Your task to perform on an android device: What's the weather today? Image 0: 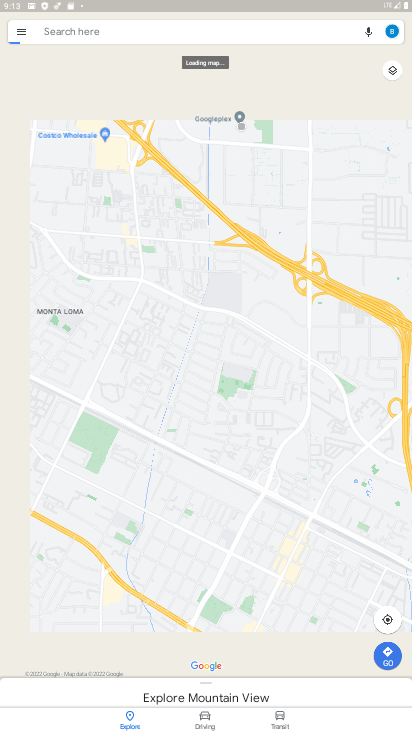
Step 0: drag from (254, 602) to (289, 422)
Your task to perform on an android device: What's the weather today? Image 1: 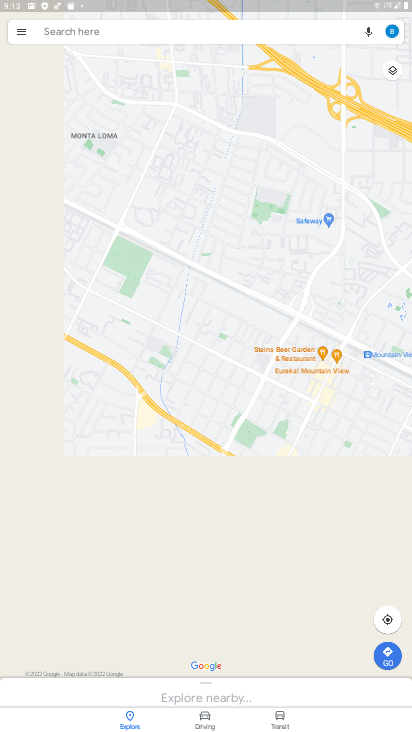
Step 1: press home button
Your task to perform on an android device: What's the weather today? Image 2: 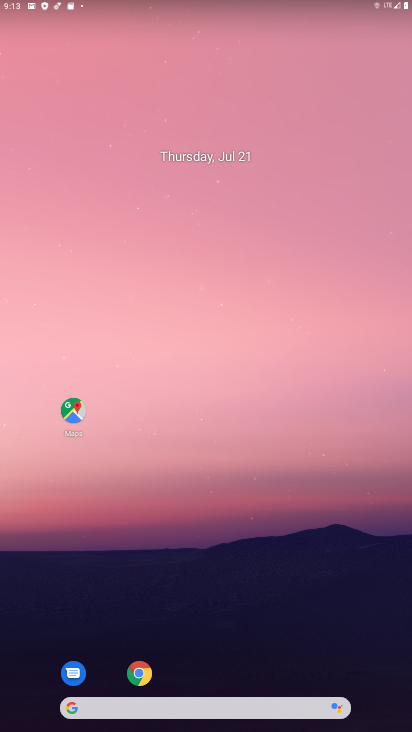
Step 2: drag from (198, 502) to (252, 81)
Your task to perform on an android device: What's the weather today? Image 3: 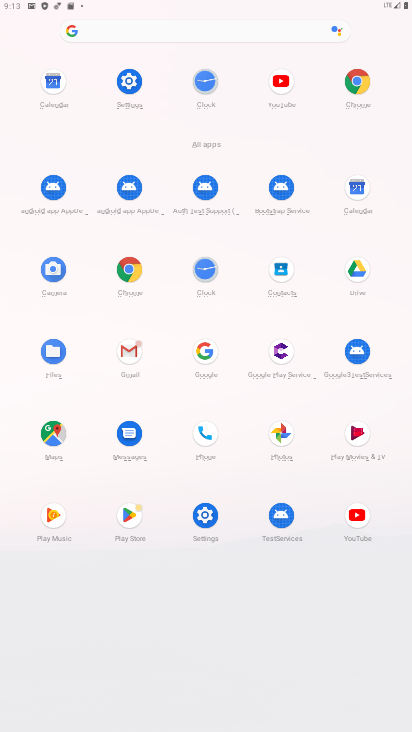
Step 3: click (169, 34)
Your task to perform on an android device: What's the weather today? Image 4: 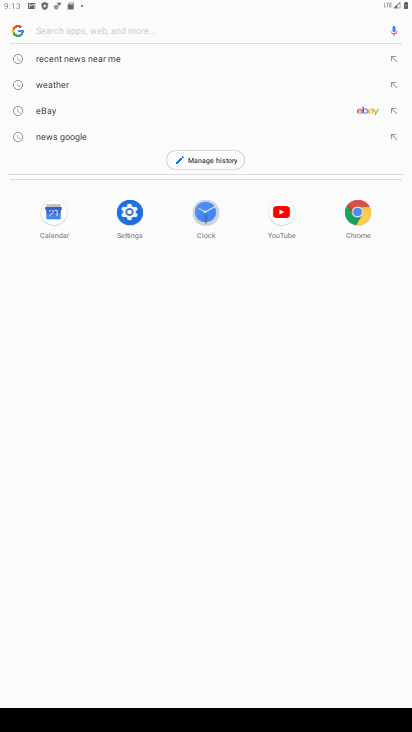
Step 4: click (164, 24)
Your task to perform on an android device: What's the weather today? Image 5: 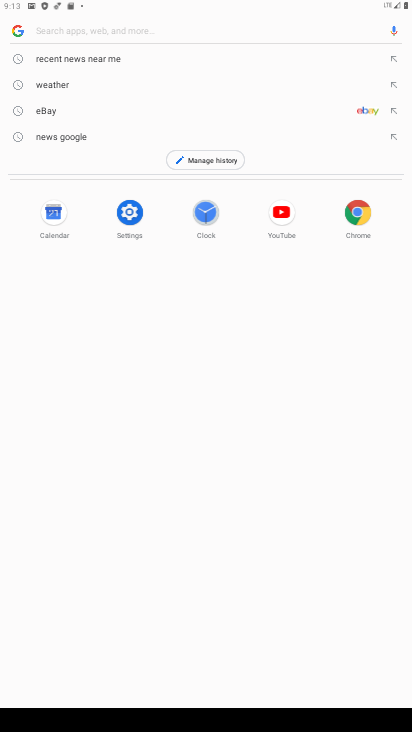
Step 5: type "What's the weather today?"
Your task to perform on an android device: What's the weather today? Image 6: 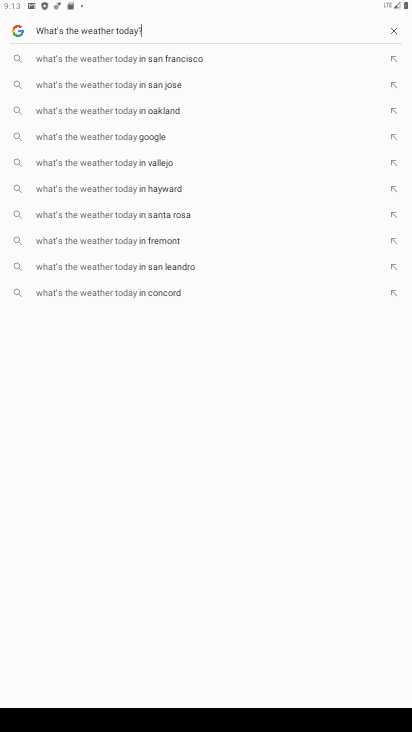
Step 6: type ""
Your task to perform on an android device: What's the weather today? Image 7: 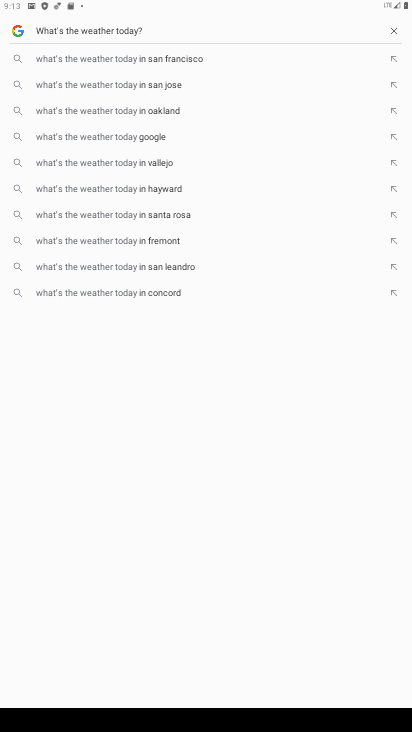
Step 7: click (150, 142)
Your task to perform on an android device: What's the weather today? Image 8: 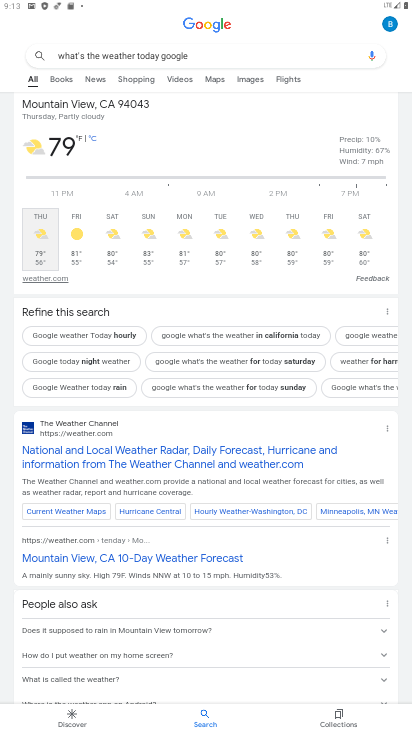
Step 8: task complete